Your task to perform on an android device: Go to Google maps Image 0: 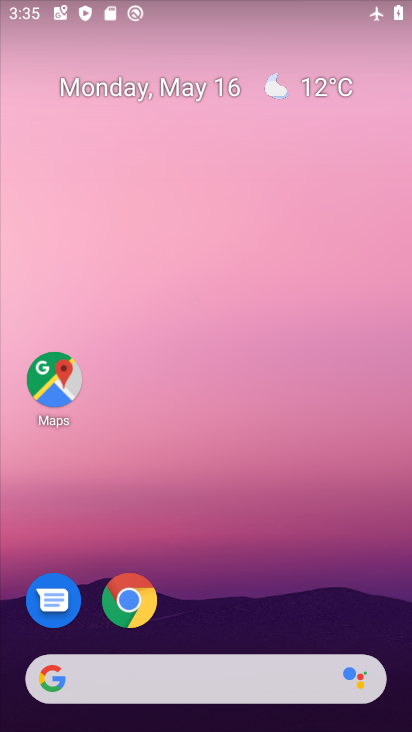
Step 0: click (52, 371)
Your task to perform on an android device: Go to Google maps Image 1: 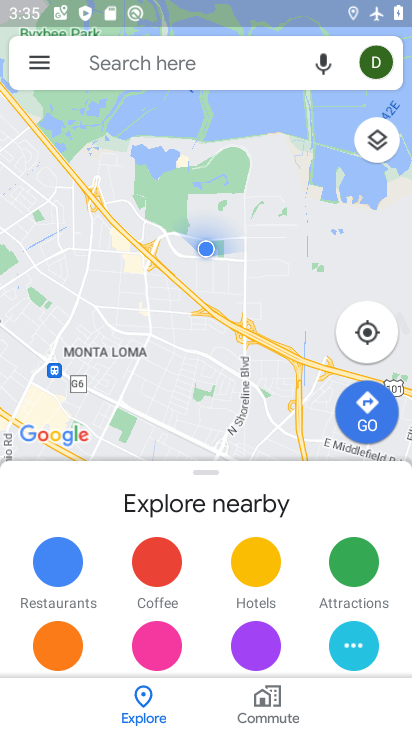
Step 1: task complete